Your task to perform on an android device: allow cookies in the chrome app Image 0: 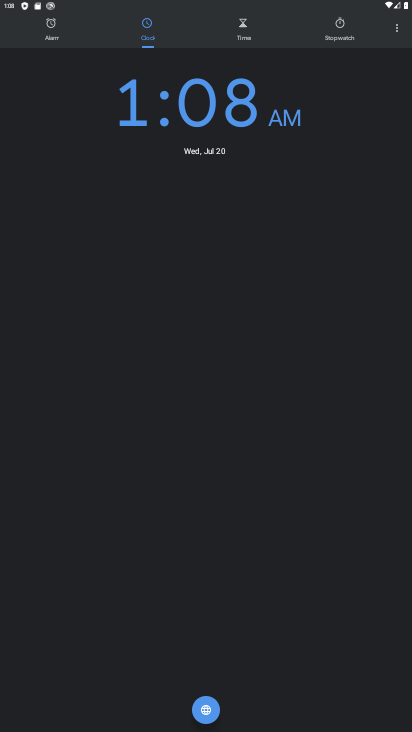
Step 0: press home button
Your task to perform on an android device: allow cookies in the chrome app Image 1: 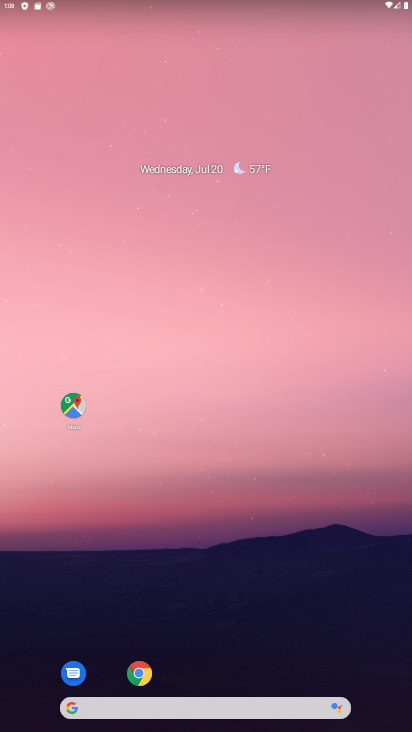
Step 1: click (147, 674)
Your task to perform on an android device: allow cookies in the chrome app Image 2: 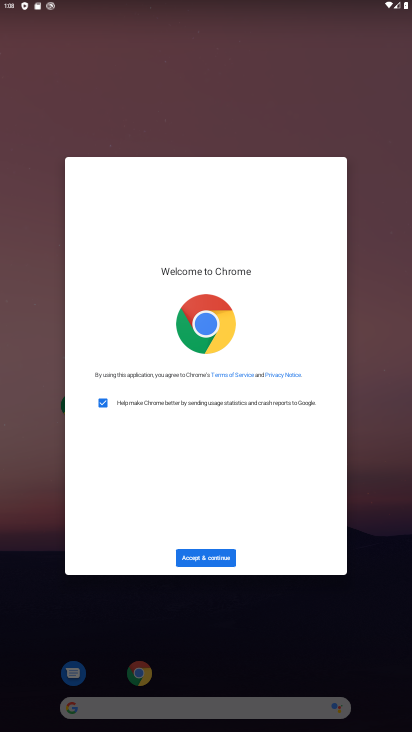
Step 2: click (205, 563)
Your task to perform on an android device: allow cookies in the chrome app Image 3: 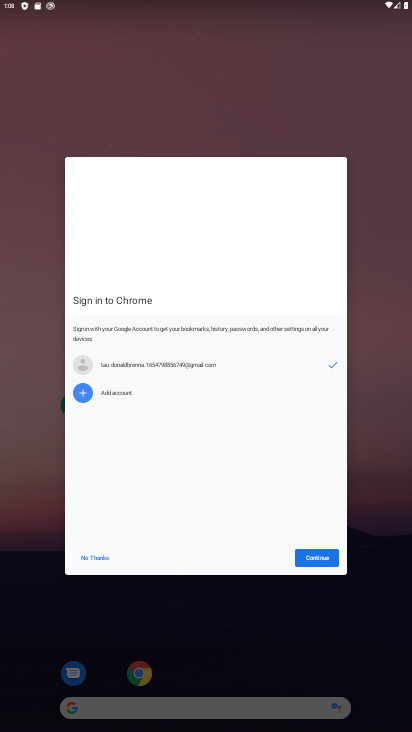
Step 3: click (316, 555)
Your task to perform on an android device: allow cookies in the chrome app Image 4: 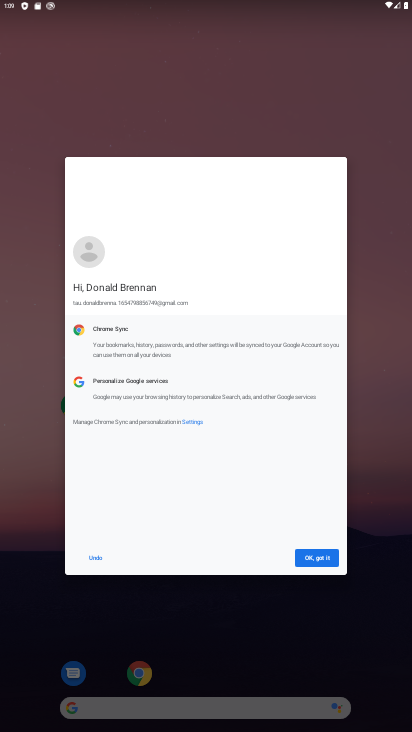
Step 4: click (309, 556)
Your task to perform on an android device: allow cookies in the chrome app Image 5: 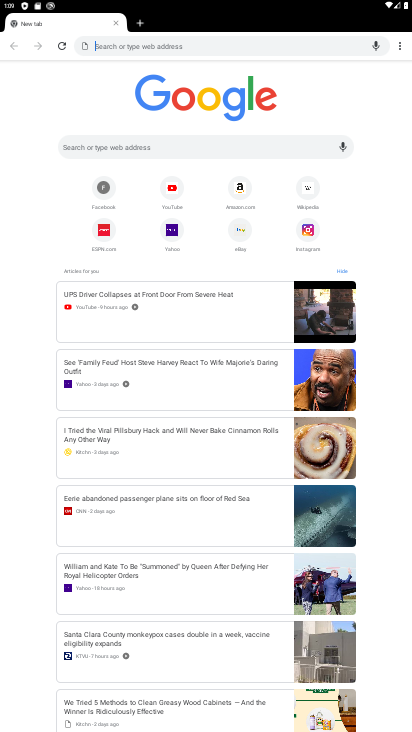
Step 5: click (402, 46)
Your task to perform on an android device: allow cookies in the chrome app Image 6: 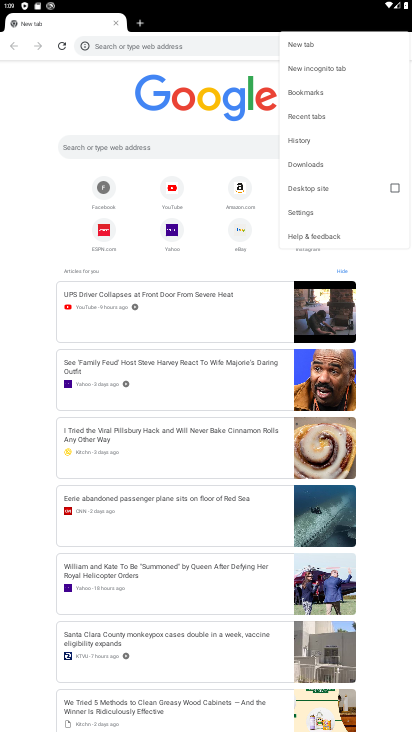
Step 6: click (305, 209)
Your task to perform on an android device: allow cookies in the chrome app Image 7: 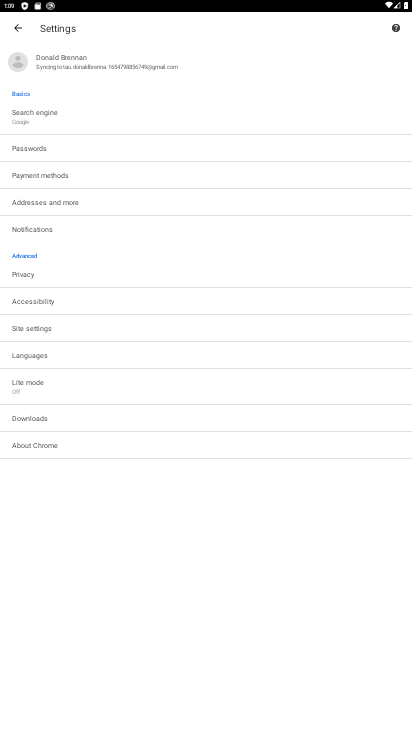
Step 7: click (67, 326)
Your task to perform on an android device: allow cookies in the chrome app Image 8: 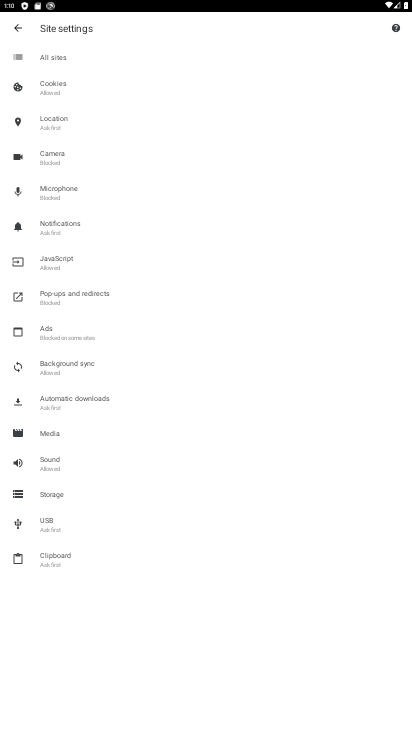
Step 8: click (64, 83)
Your task to perform on an android device: allow cookies in the chrome app Image 9: 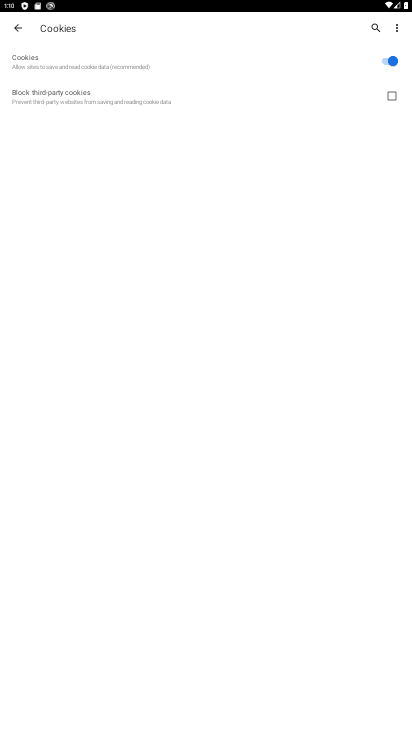
Step 9: task complete